Your task to perform on an android device: toggle improve location accuracy Image 0: 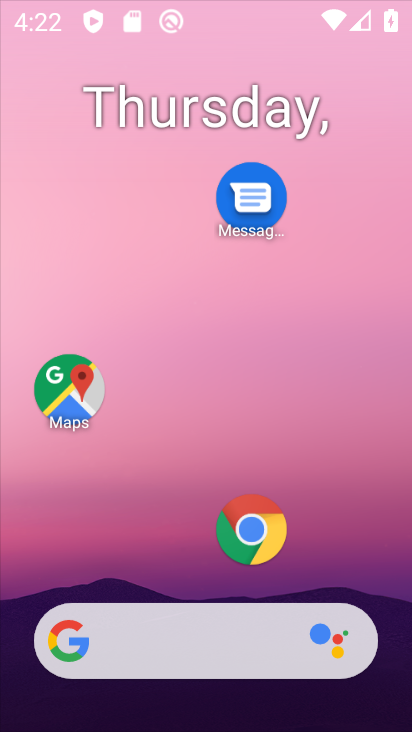
Step 0: click (164, 654)
Your task to perform on an android device: toggle improve location accuracy Image 1: 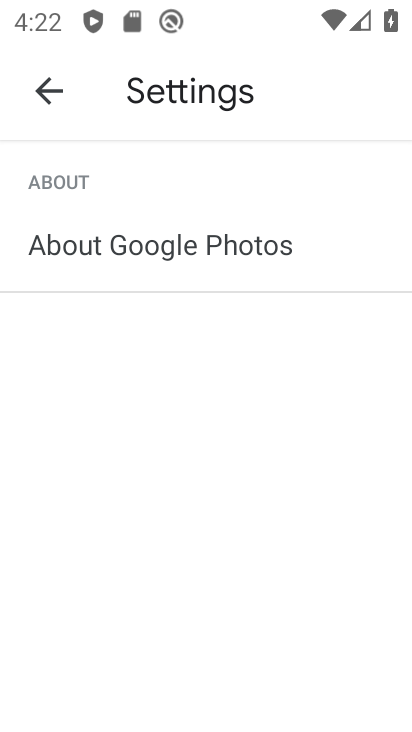
Step 1: press back button
Your task to perform on an android device: toggle improve location accuracy Image 2: 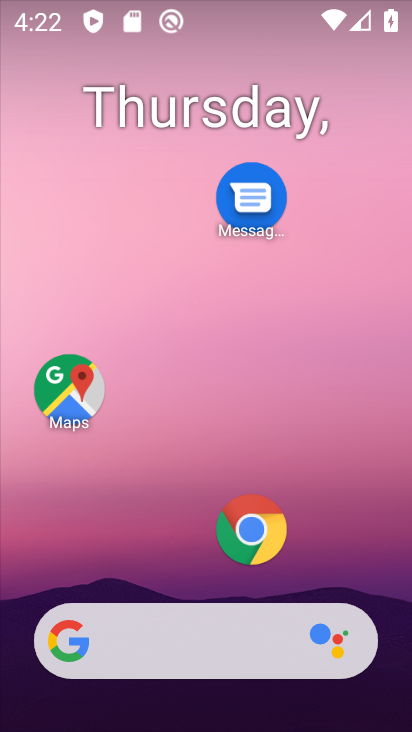
Step 2: drag from (190, 569) to (262, 66)
Your task to perform on an android device: toggle improve location accuracy Image 3: 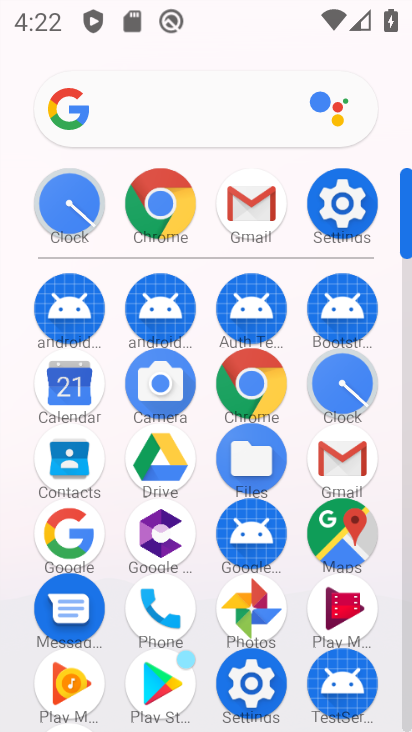
Step 3: click (352, 209)
Your task to perform on an android device: toggle improve location accuracy Image 4: 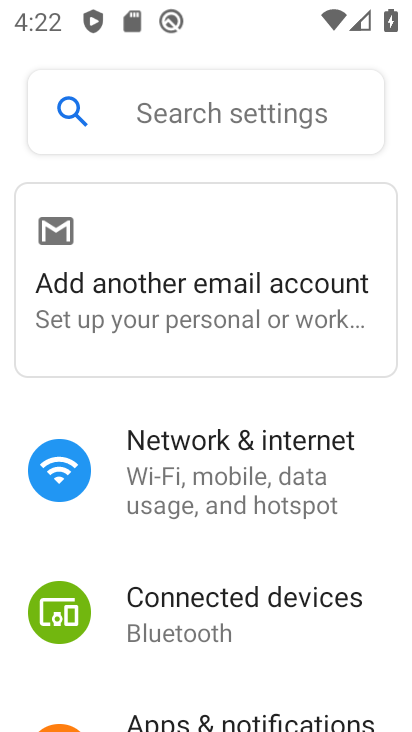
Step 4: drag from (197, 645) to (319, 130)
Your task to perform on an android device: toggle improve location accuracy Image 5: 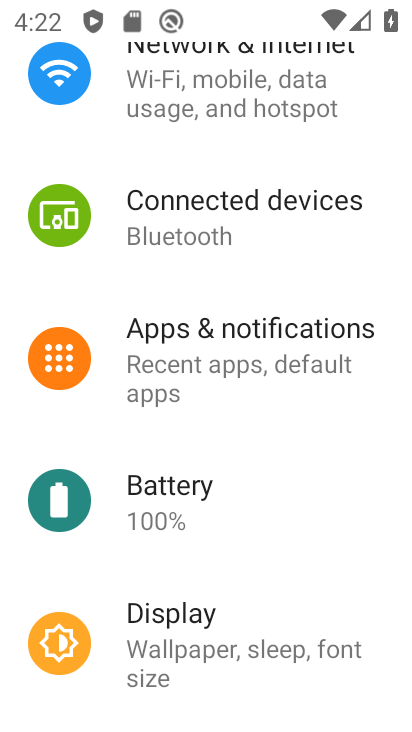
Step 5: drag from (177, 632) to (312, 115)
Your task to perform on an android device: toggle improve location accuracy Image 6: 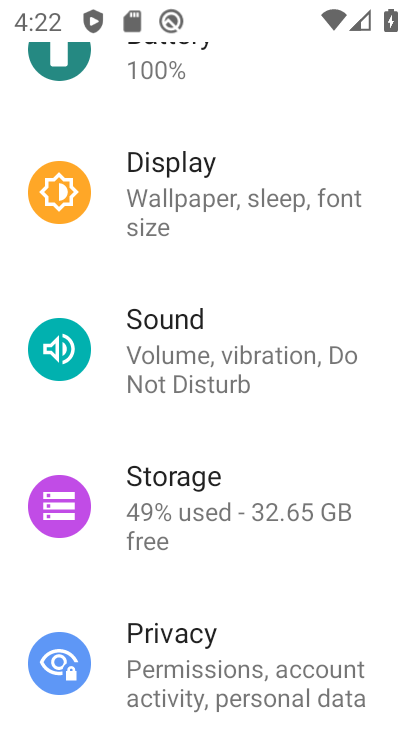
Step 6: drag from (208, 579) to (340, 160)
Your task to perform on an android device: toggle improve location accuracy Image 7: 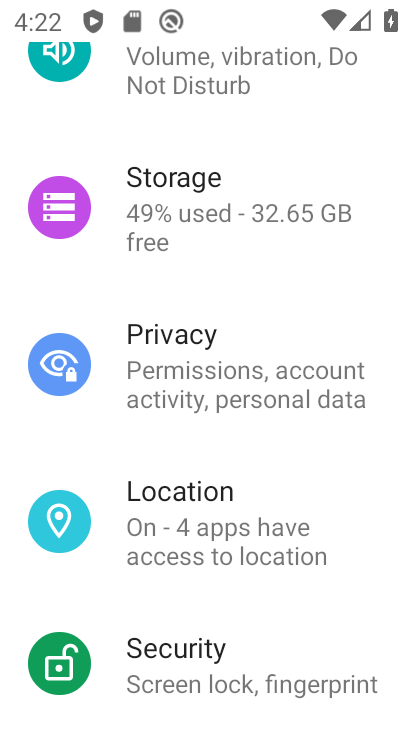
Step 7: click (183, 527)
Your task to perform on an android device: toggle improve location accuracy Image 8: 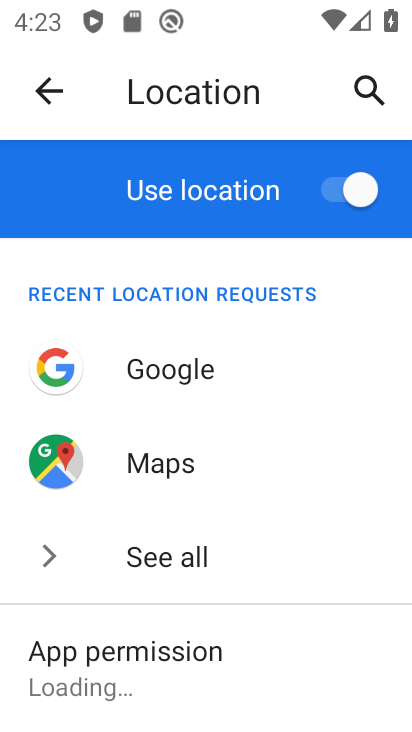
Step 8: drag from (201, 669) to (318, 141)
Your task to perform on an android device: toggle improve location accuracy Image 9: 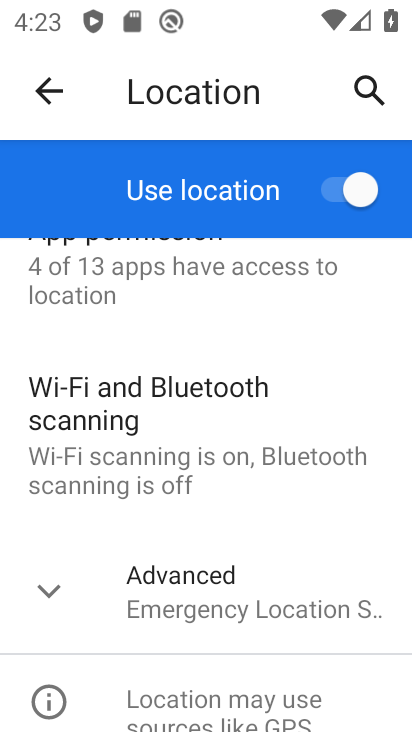
Step 9: click (192, 583)
Your task to perform on an android device: toggle improve location accuracy Image 10: 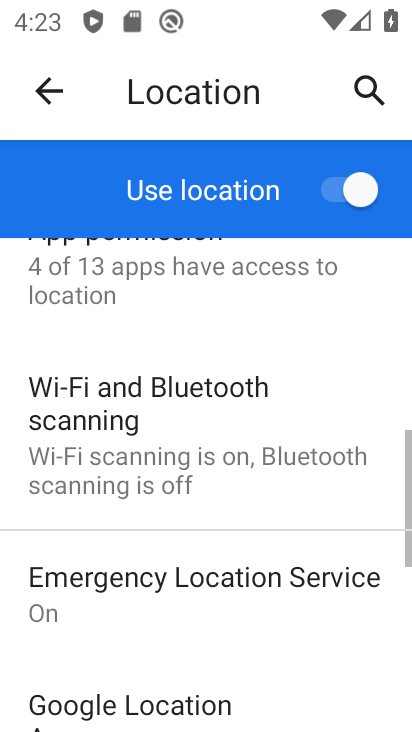
Step 10: drag from (193, 556) to (272, 145)
Your task to perform on an android device: toggle improve location accuracy Image 11: 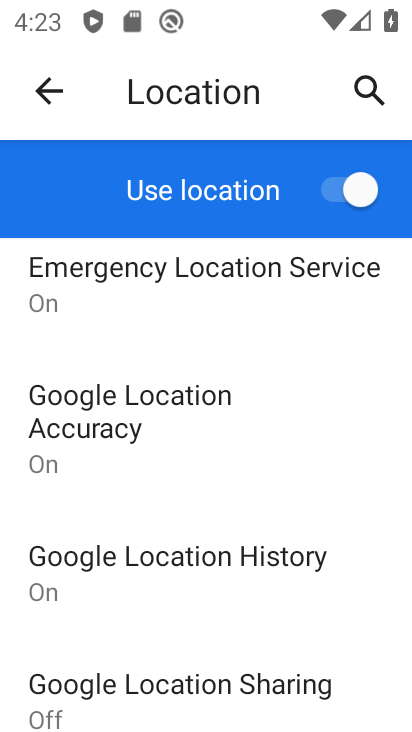
Step 11: click (137, 431)
Your task to perform on an android device: toggle improve location accuracy Image 12: 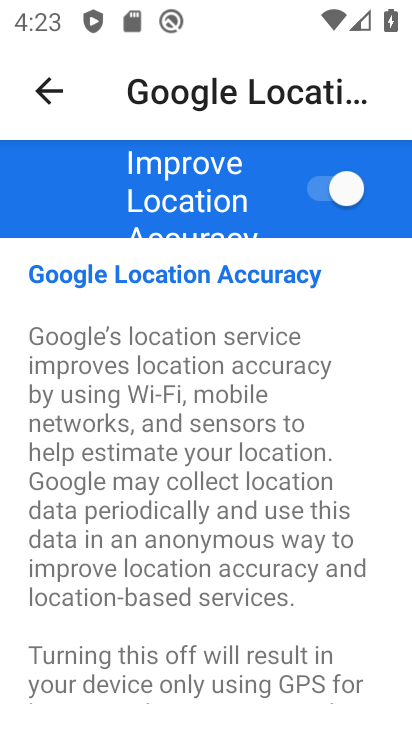
Step 12: click (342, 187)
Your task to perform on an android device: toggle improve location accuracy Image 13: 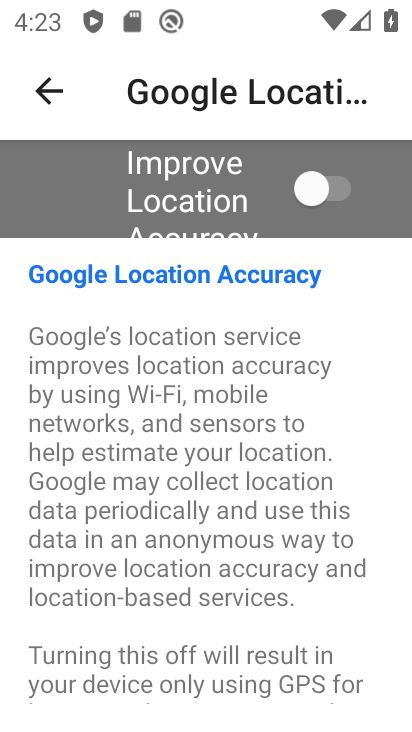
Step 13: task complete